Your task to perform on an android device: allow cookies in the chrome app Image 0: 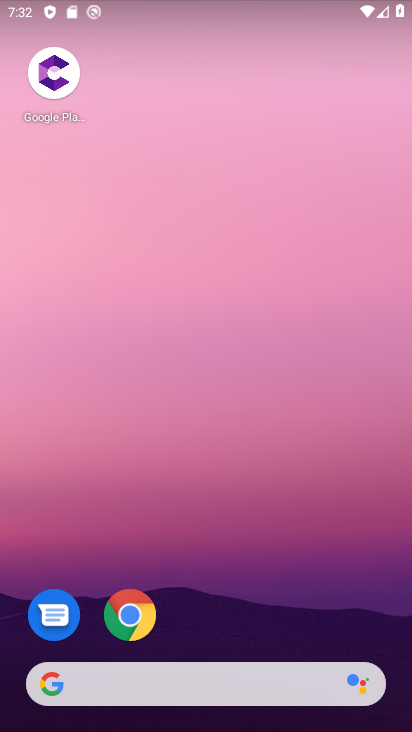
Step 0: click (110, 613)
Your task to perform on an android device: allow cookies in the chrome app Image 1: 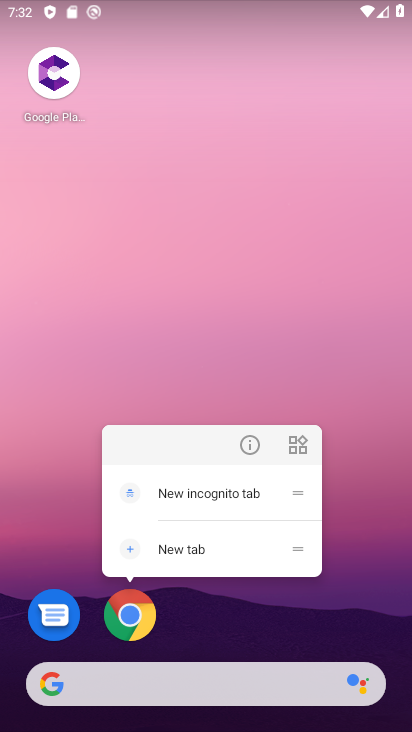
Step 1: click (144, 618)
Your task to perform on an android device: allow cookies in the chrome app Image 2: 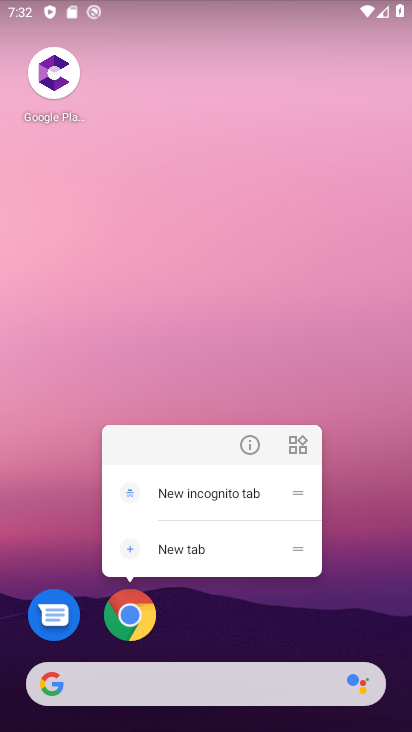
Step 2: click (143, 611)
Your task to perform on an android device: allow cookies in the chrome app Image 3: 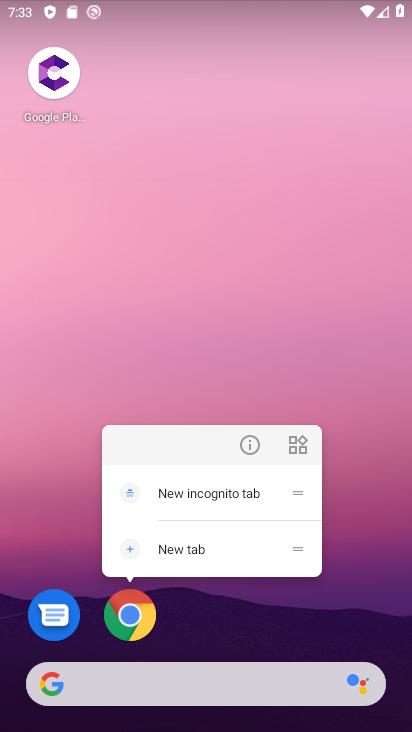
Step 3: click (128, 617)
Your task to perform on an android device: allow cookies in the chrome app Image 4: 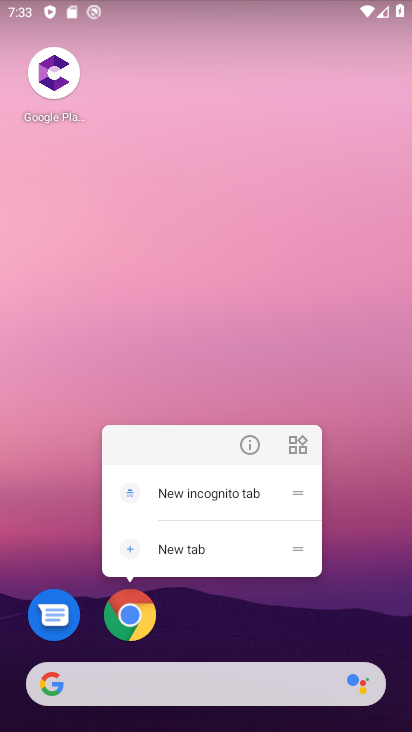
Step 4: click (125, 612)
Your task to perform on an android device: allow cookies in the chrome app Image 5: 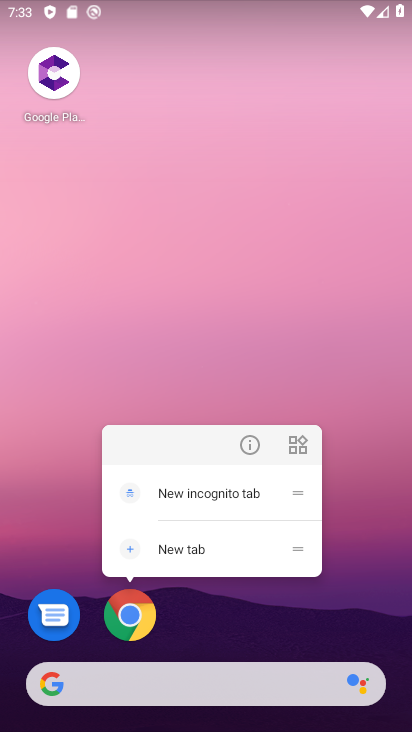
Step 5: click (125, 612)
Your task to perform on an android device: allow cookies in the chrome app Image 6: 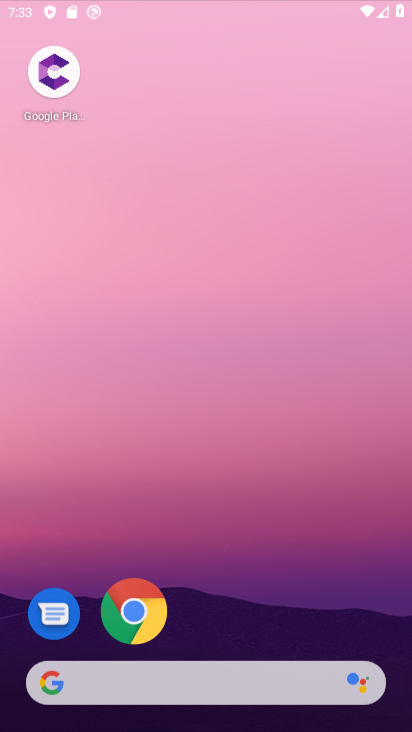
Step 6: click (146, 630)
Your task to perform on an android device: allow cookies in the chrome app Image 7: 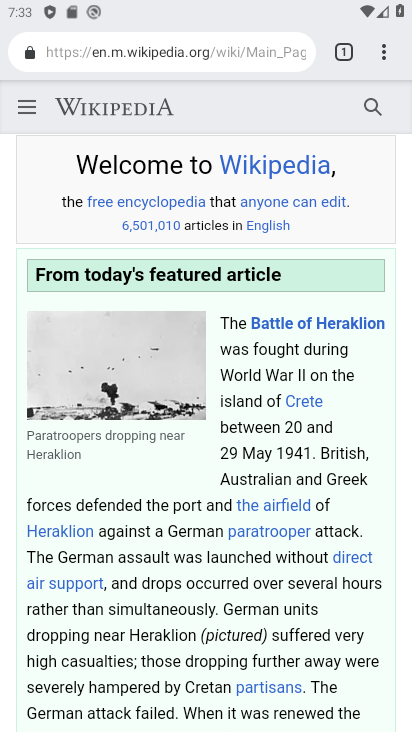
Step 7: click (383, 67)
Your task to perform on an android device: allow cookies in the chrome app Image 8: 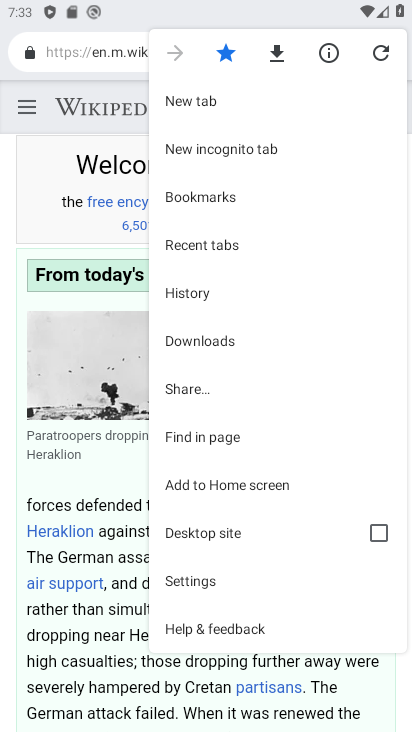
Step 8: click (209, 588)
Your task to perform on an android device: allow cookies in the chrome app Image 9: 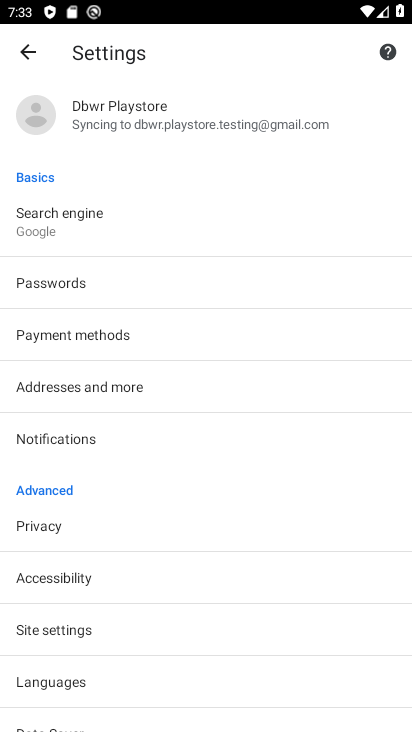
Step 9: drag from (153, 694) to (150, 250)
Your task to perform on an android device: allow cookies in the chrome app Image 10: 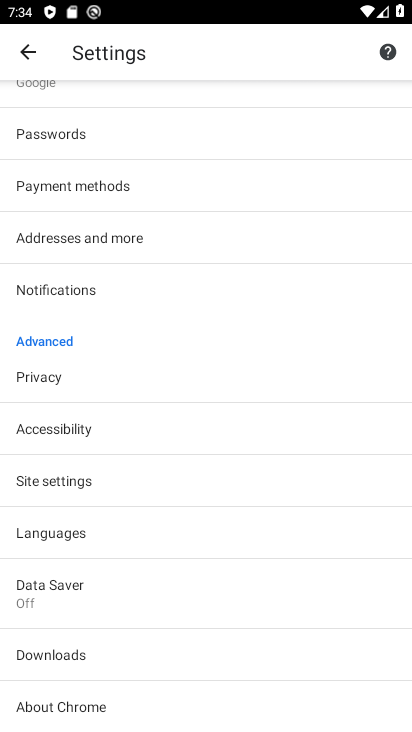
Step 10: click (71, 489)
Your task to perform on an android device: allow cookies in the chrome app Image 11: 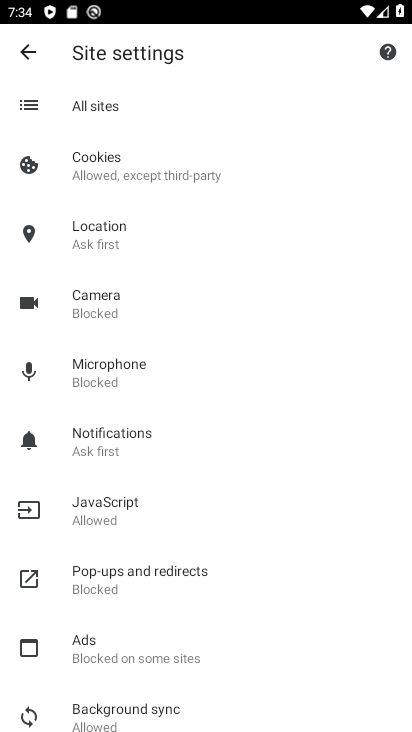
Step 11: click (144, 182)
Your task to perform on an android device: allow cookies in the chrome app Image 12: 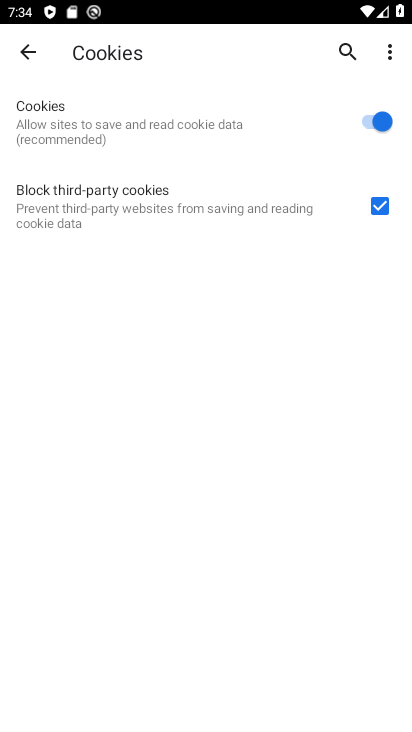
Step 12: task complete